Your task to perform on an android device: toggle notifications settings in the gmail app Image 0: 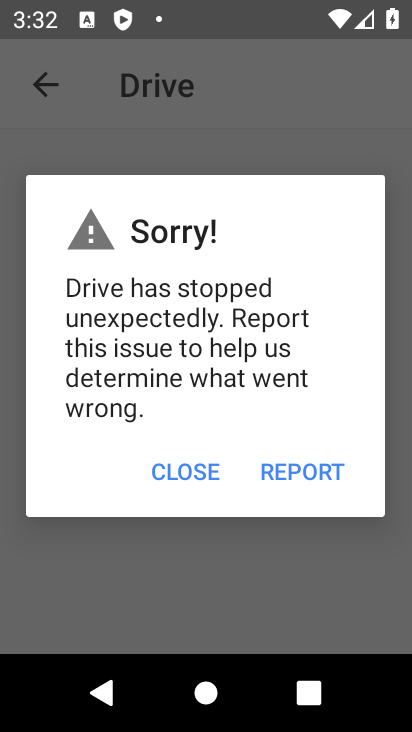
Step 0: task complete